Your task to perform on an android device: Check the weather Image 0: 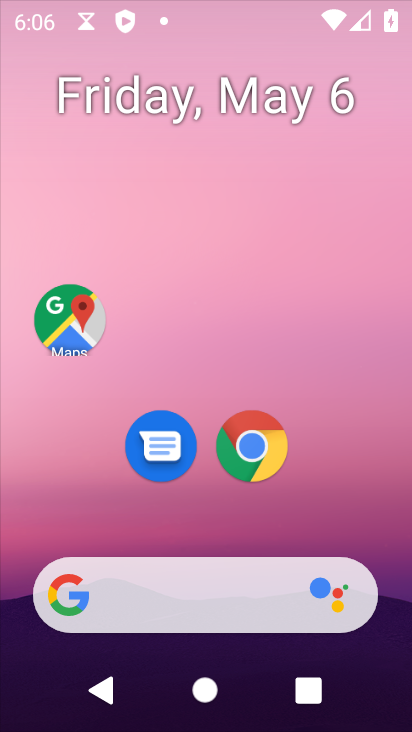
Step 0: drag from (372, 442) to (349, 160)
Your task to perform on an android device: Check the weather Image 1: 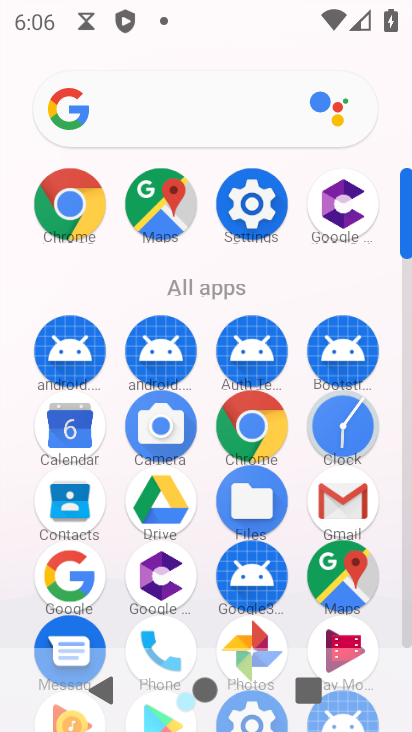
Step 1: click (259, 216)
Your task to perform on an android device: Check the weather Image 2: 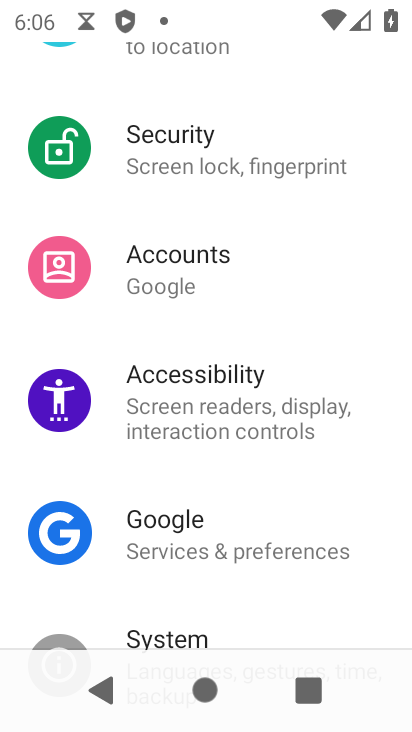
Step 2: drag from (222, 596) to (283, 87)
Your task to perform on an android device: Check the weather Image 3: 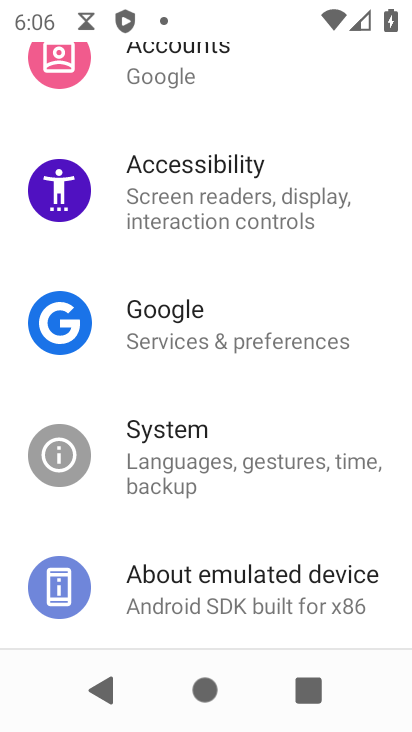
Step 3: click (181, 584)
Your task to perform on an android device: Check the weather Image 4: 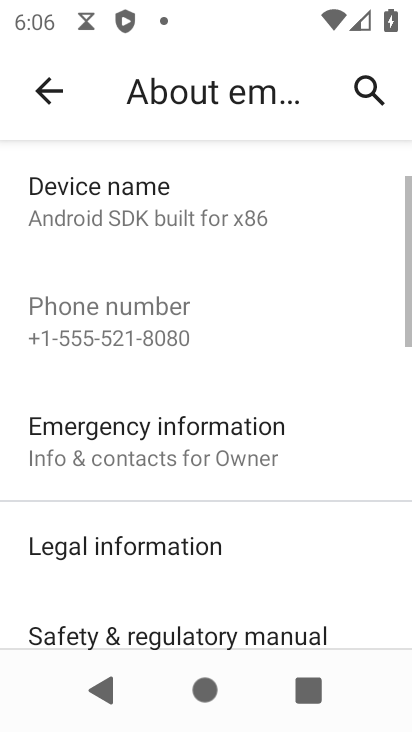
Step 4: task complete